Your task to perform on an android device: Do I have any events this weekend? Image 0: 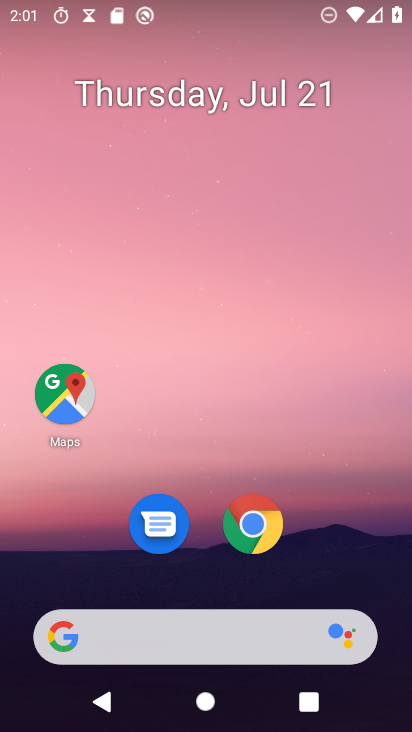
Step 0: drag from (185, 636) to (278, 118)
Your task to perform on an android device: Do I have any events this weekend? Image 1: 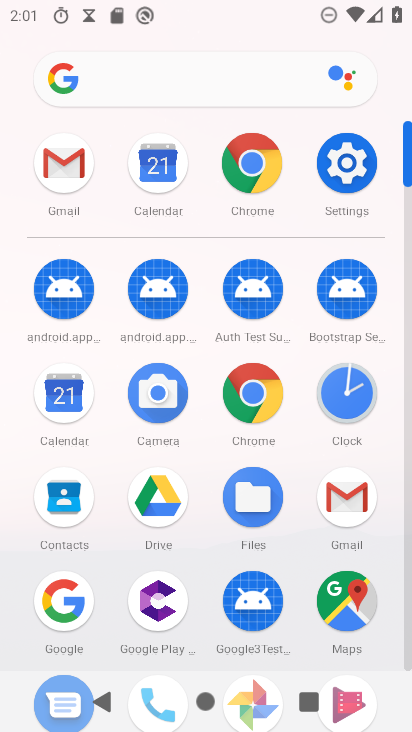
Step 1: click (53, 397)
Your task to perform on an android device: Do I have any events this weekend? Image 2: 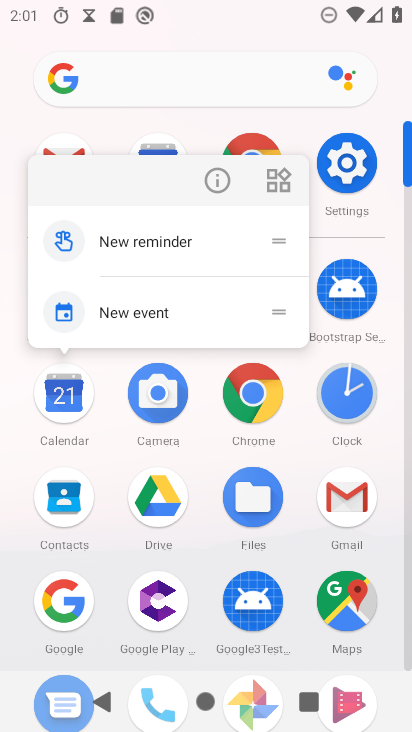
Step 2: click (58, 410)
Your task to perform on an android device: Do I have any events this weekend? Image 3: 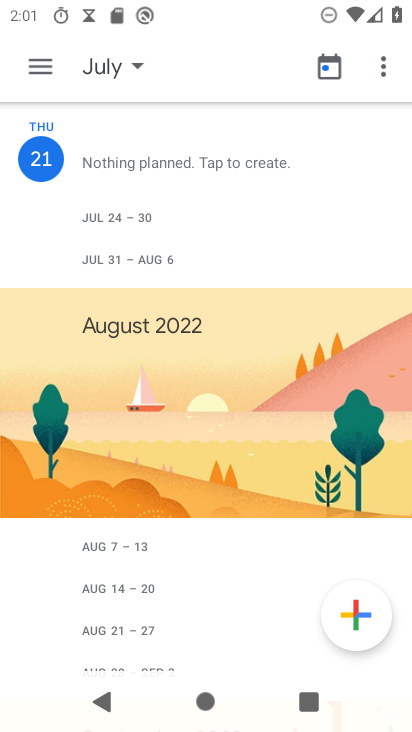
Step 3: click (89, 73)
Your task to perform on an android device: Do I have any events this weekend? Image 4: 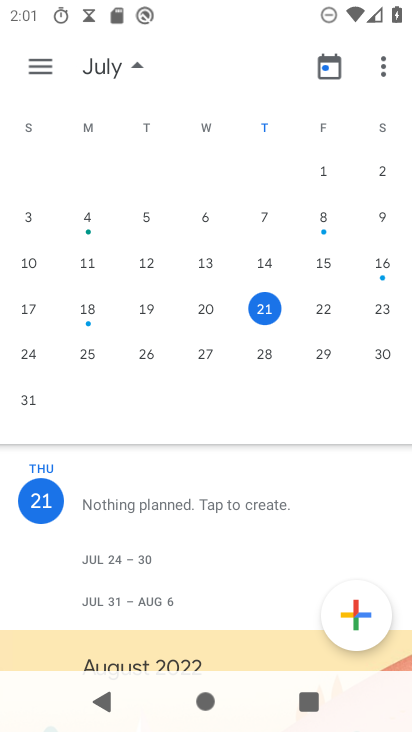
Step 4: click (383, 307)
Your task to perform on an android device: Do I have any events this weekend? Image 5: 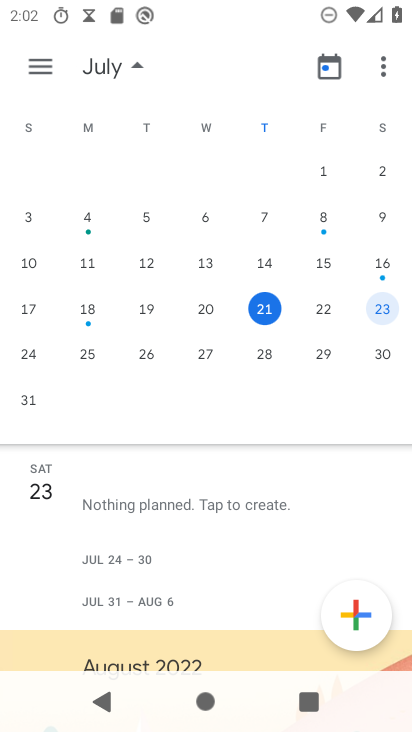
Step 5: click (37, 61)
Your task to perform on an android device: Do I have any events this weekend? Image 6: 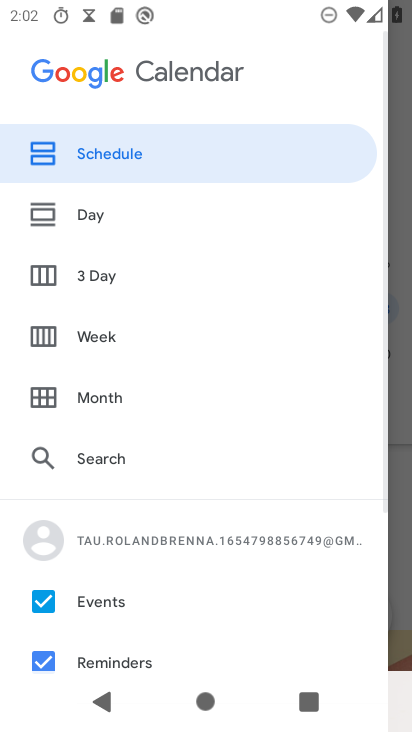
Step 6: click (120, 158)
Your task to perform on an android device: Do I have any events this weekend? Image 7: 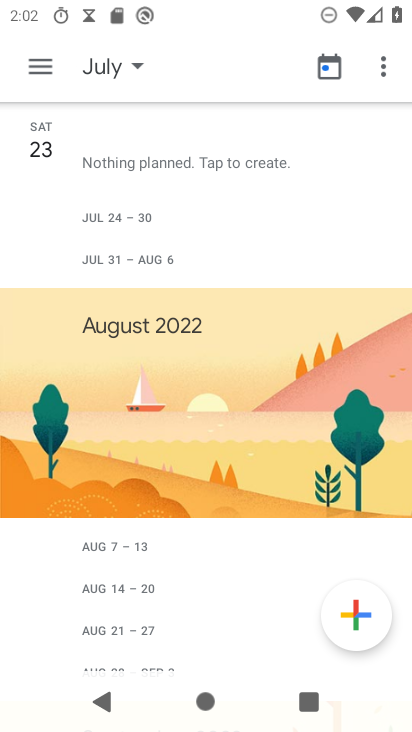
Step 7: task complete